Your task to perform on an android device: add a label to a message in the gmail app Image 0: 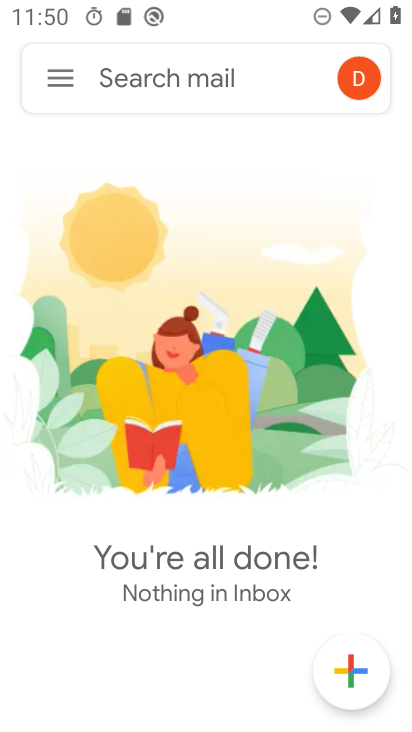
Step 0: task impossible